Your task to perform on an android device: Search for Mexican restaurants on Maps Image 0: 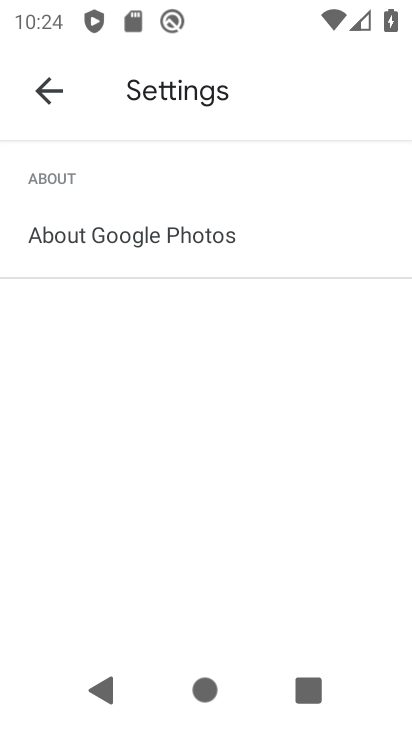
Step 0: press home button
Your task to perform on an android device: Search for Mexican restaurants on Maps Image 1: 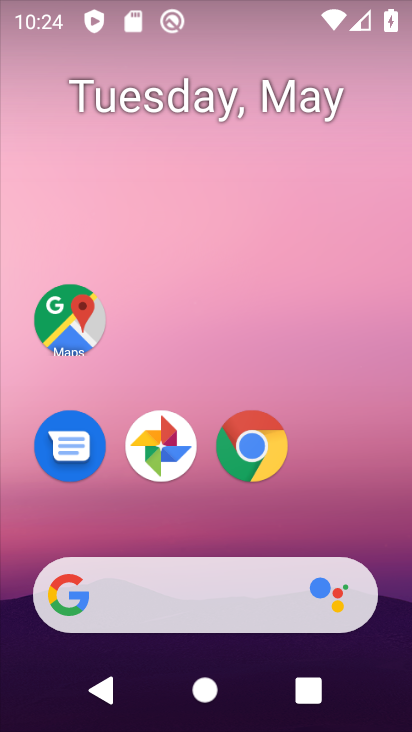
Step 1: click (52, 334)
Your task to perform on an android device: Search for Mexican restaurants on Maps Image 2: 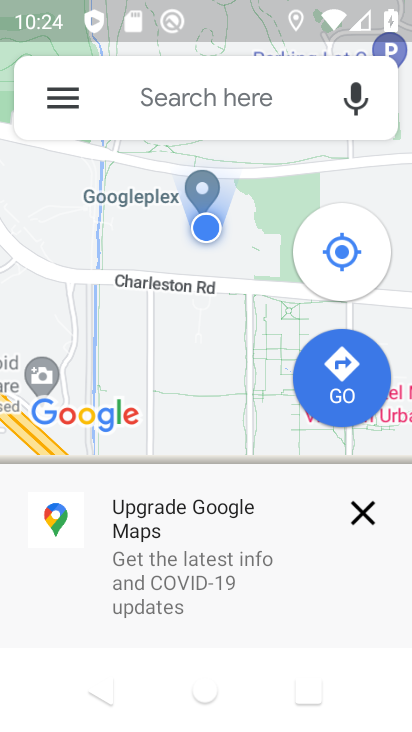
Step 2: click (251, 81)
Your task to perform on an android device: Search for Mexican restaurants on Maps Image 3: 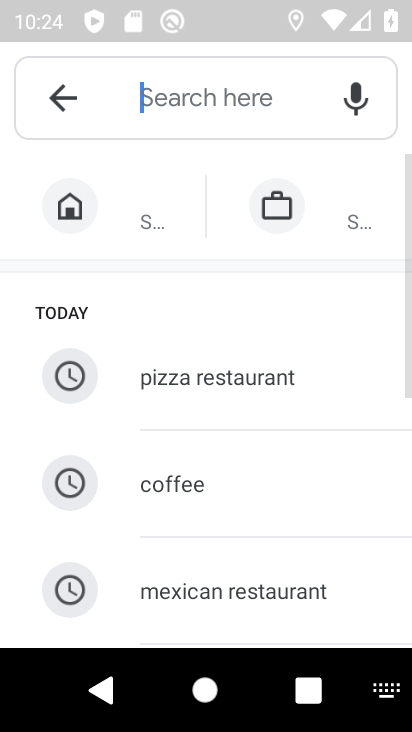
Step 3: click (242, 587)
Your task to perform on an android device: Search for Mexican restaurants on Maps Image 4: 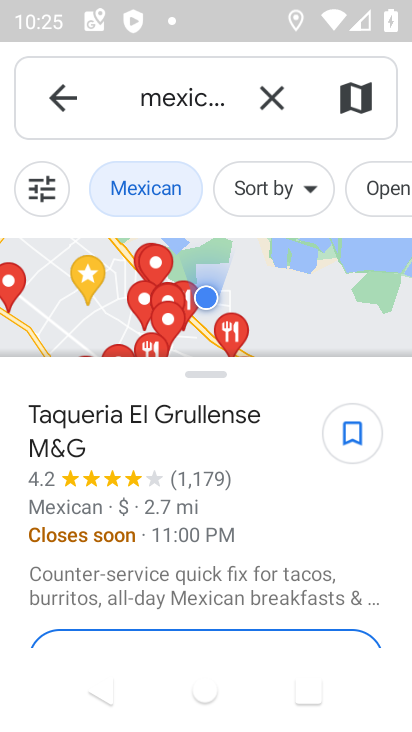
Step 4: task complete